Your task to perform on an android device: Show me productivity apps on the Play Store Image 0: 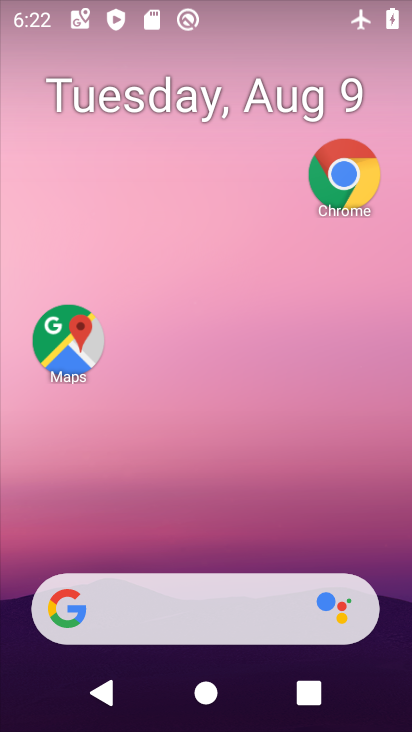
Step 0: drag from (182, 465) to (191, 257)
Your task to perform on an android device: Show me productivity apps on the Play Store Image 1: 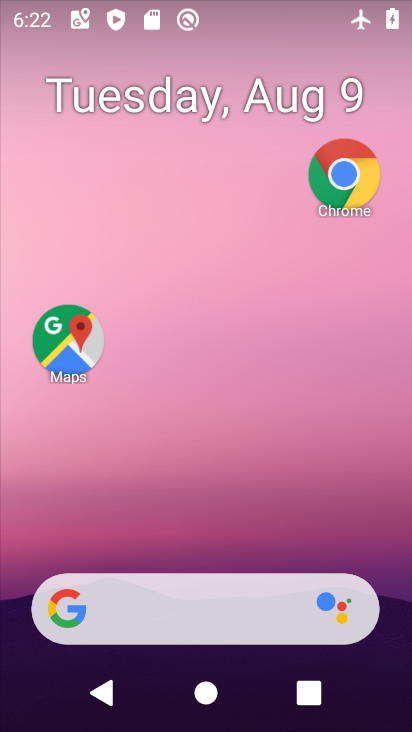
Step 1: drag from (166, 539) to (178, 280)
Your task to perform on an android device: Show me productivity apps on the Play Store Image 2: 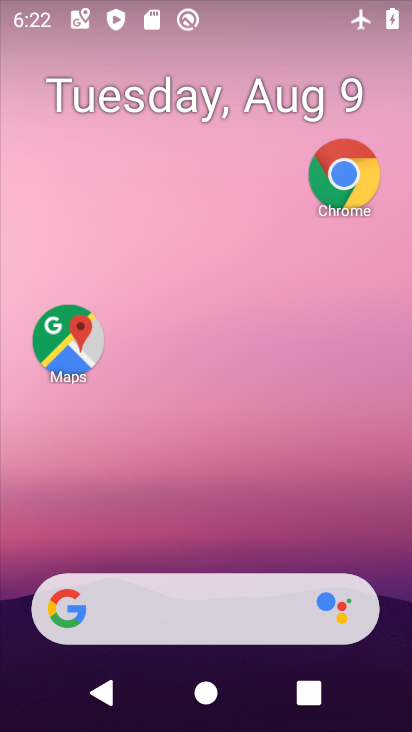
Step 2: drag from (227, 565) to (235, 256)
Your task to perform on an android device: Show me productivity apps on the Play Store Image 3: 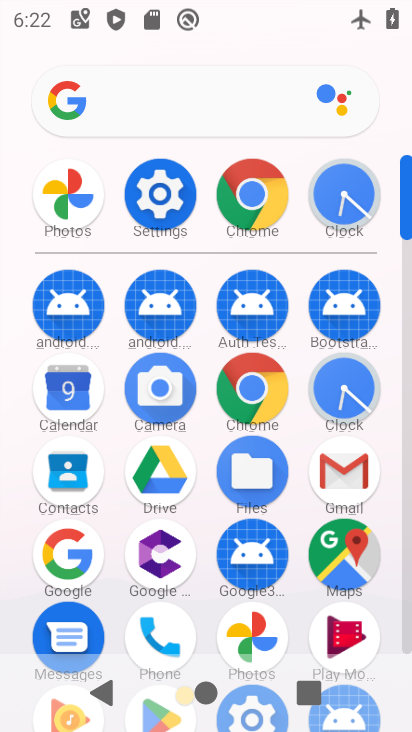
Step 3: drag from (197, 584) to (215, 133)
Your task to perform on an android device: Show me productivity apps on the Play Store Image 4: 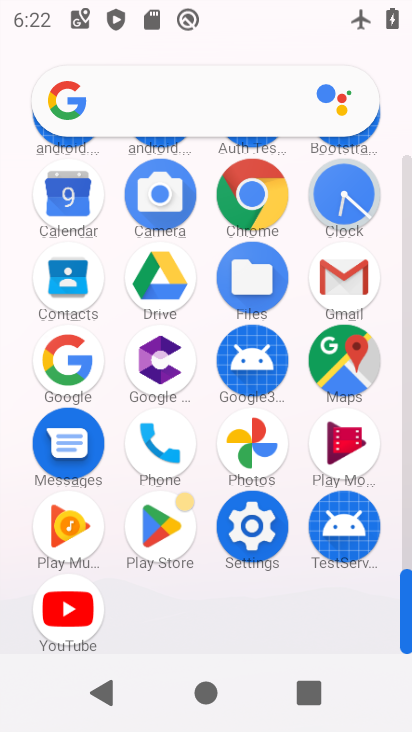
Step 4: click (153, 519)
Your task to perform on an android device: Show me productivity apps on the Play Store Image 5: 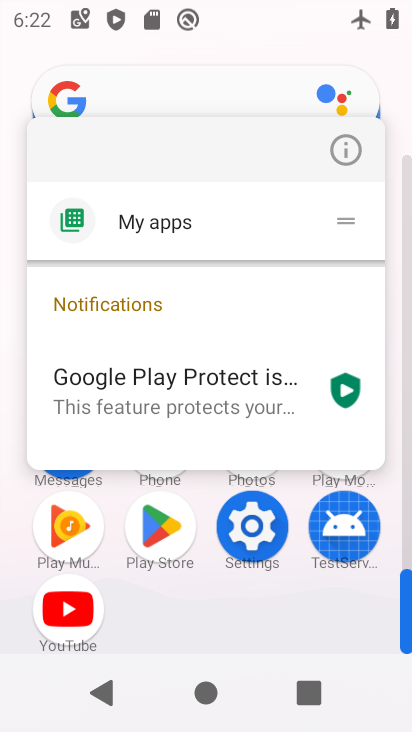
Step 5: click (342, 154)
Your task to perform on an android device: Show me productivity apps on the Play Store Image 6: 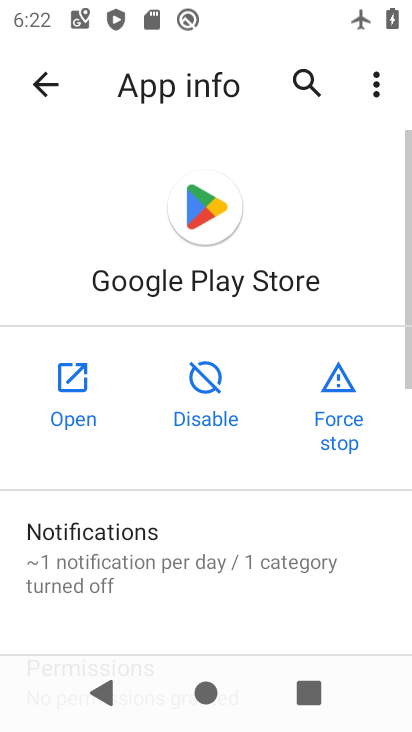
Step 6: click (95, 399)
Your task to perform on an android device: Show me productivity apps on the Play Store Image 7: 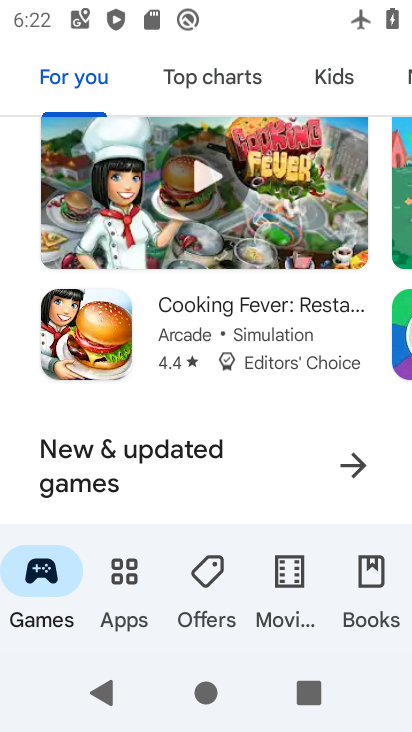
Step 7: task complete